Your task to perform on an android device: turn on airplane mode Image 0: 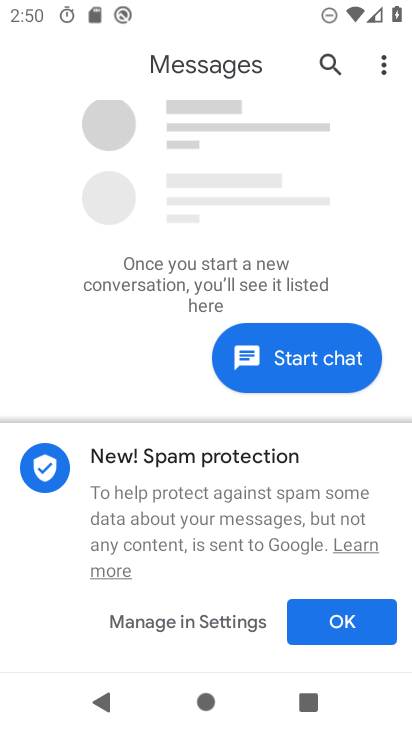
Step 0: press home button
Your task to perform on an android device: turn on airplane mode Image 1: 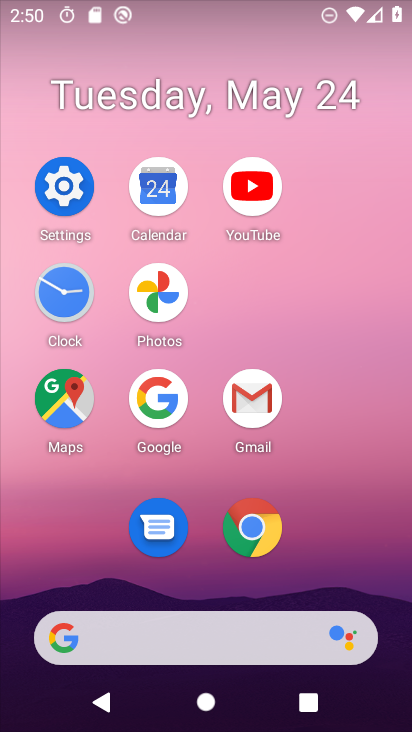
Step 1: click (81, 193)
Your task to perform on an android device: turn on airplane mode Image 2: 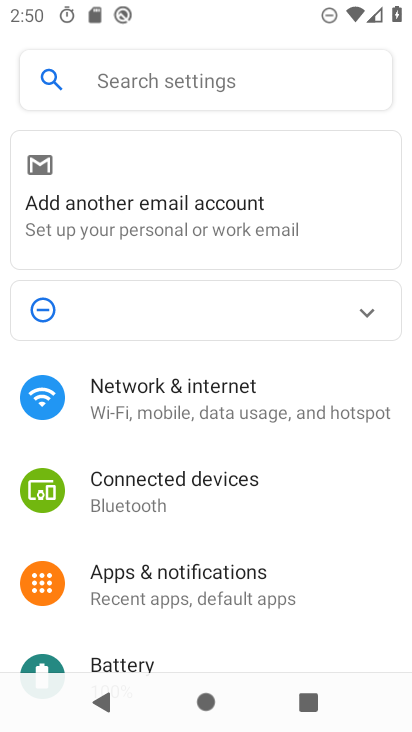
Step 2: click (263, 402)
Your task to perform on an android device: turn on airplane mode Image 3: 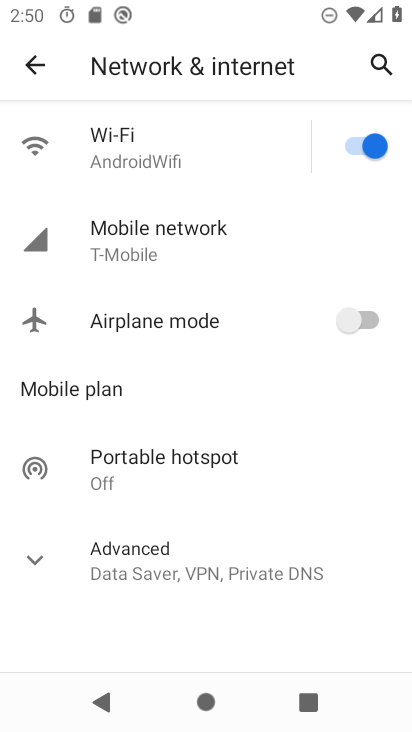
Step 3: click (372, 325)
Your task to perform on an android device: turn on airplane mode Image 4: 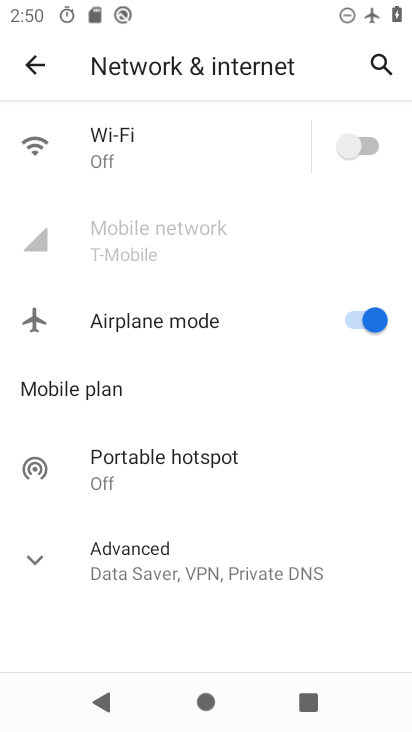
Step 4: task complete